Your task to perform on an android device: Open Reddit.com Image 0: 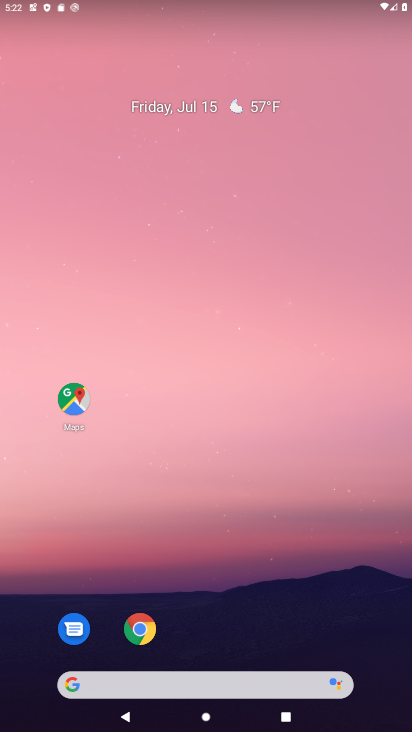
Step 0: press home button
Your task to perform on an android device: Open Reddit.com Image 1: 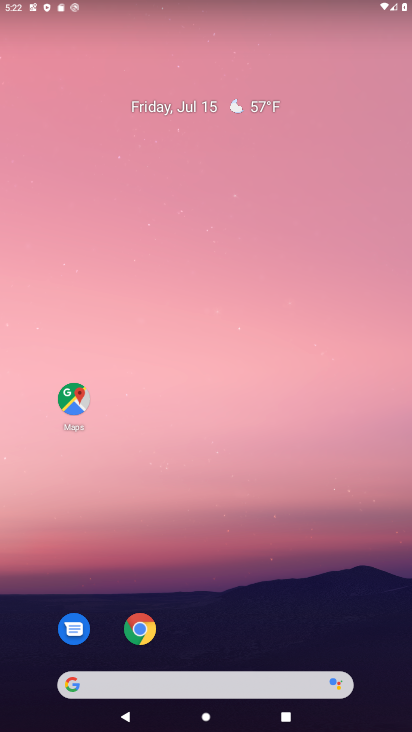
Step 1: click (72, 690)
Your task to perform on an android device: Open Reddit.com Image 2: 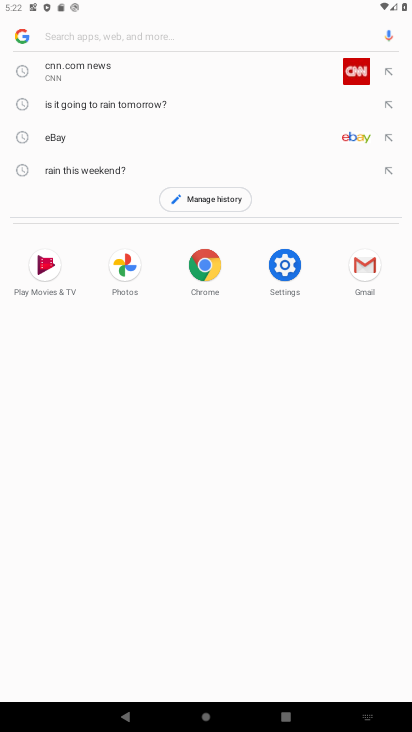
Step 2: type " Reddit.com"
Your task to perform on an android device: Open Reddit.com Image 3: 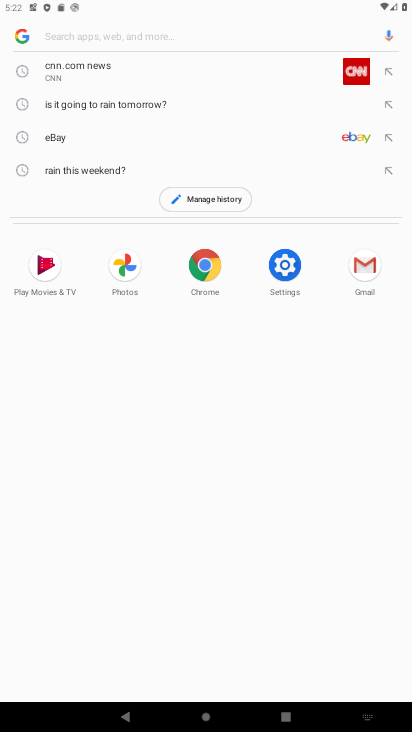
Step 3: click (47, 37)
Your task to perform on an android device: Open Reddit.com Image 4: 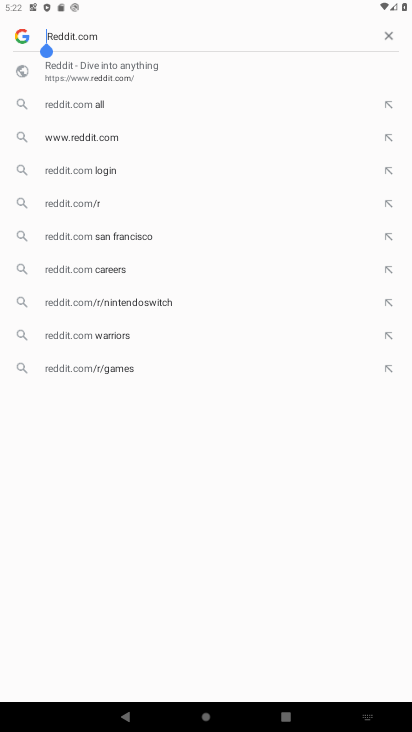
Step 4: press enter
Your task to perform on an android device: Open Reddit.com Image 5: 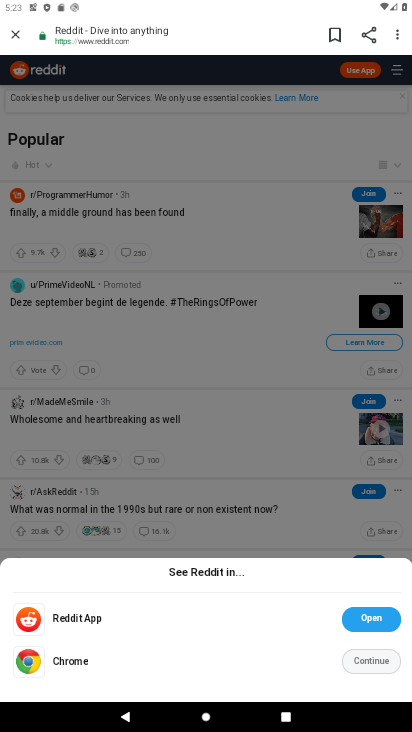
Step 5: task complete